Your task to perform on an android device: Go to Yahoo.com Image 0: 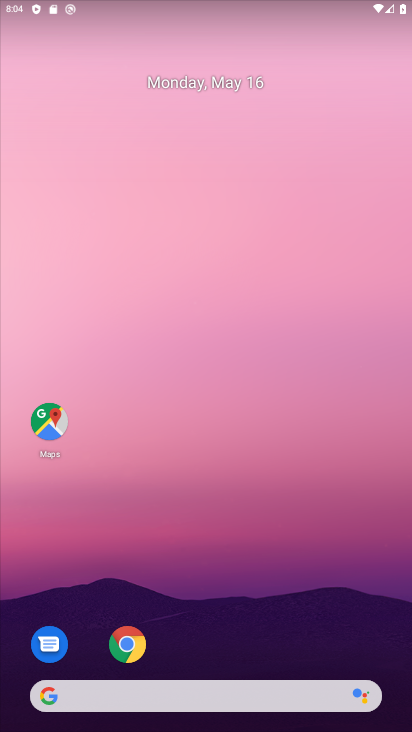
Step 0: click (288, 688)
Your task to perform on an android device: Go to Yahoo.com Image 1: 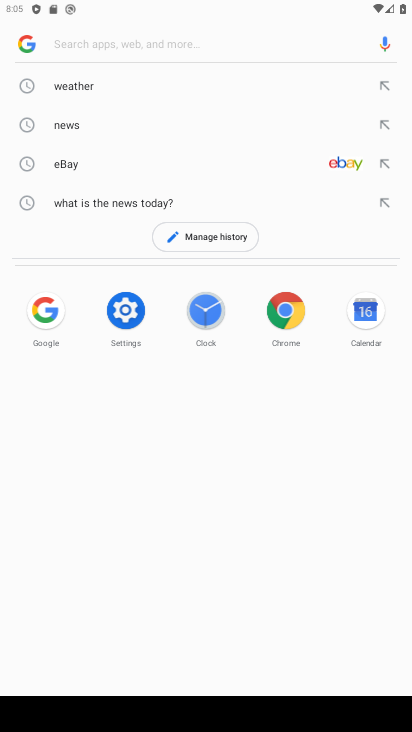
Step 1: type "yahoo.com"
Your task to perform on an android device: Go to Yahoo.com Image 2: 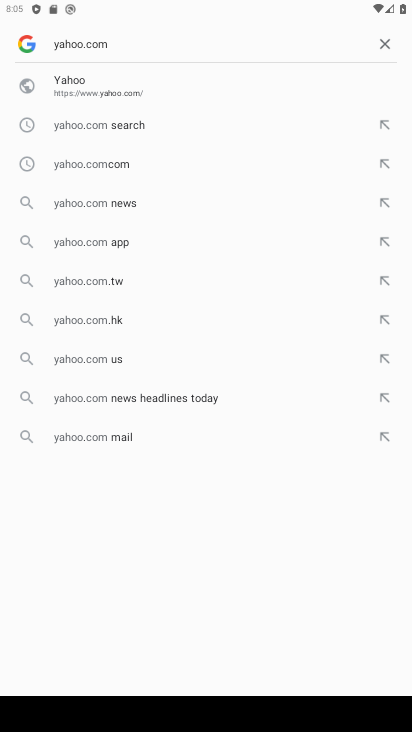
Step 2: click (167, 87)
Your task to perform on an android device: Go to Yahoo.com Image 3: 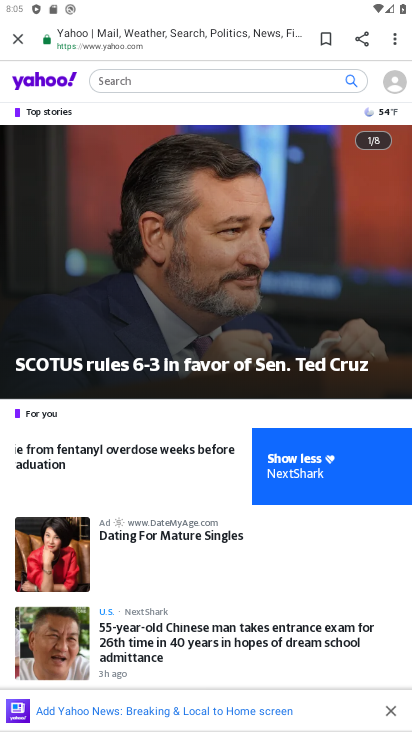
Step 3: task complete